Your task to perform on an android device: Add razer naga to the cart on ebay.com, then select checkout. Image 0: 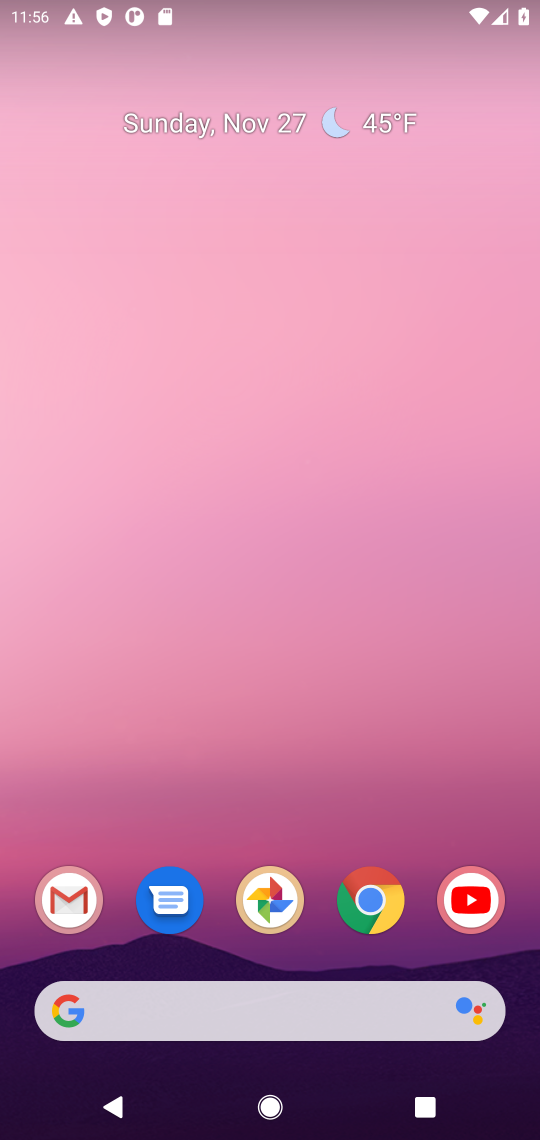
Step 0: click (380, 915)
Your task to perform on an android device: Add razer naga to the cart on ebay.com, then select checkout. Image 1: 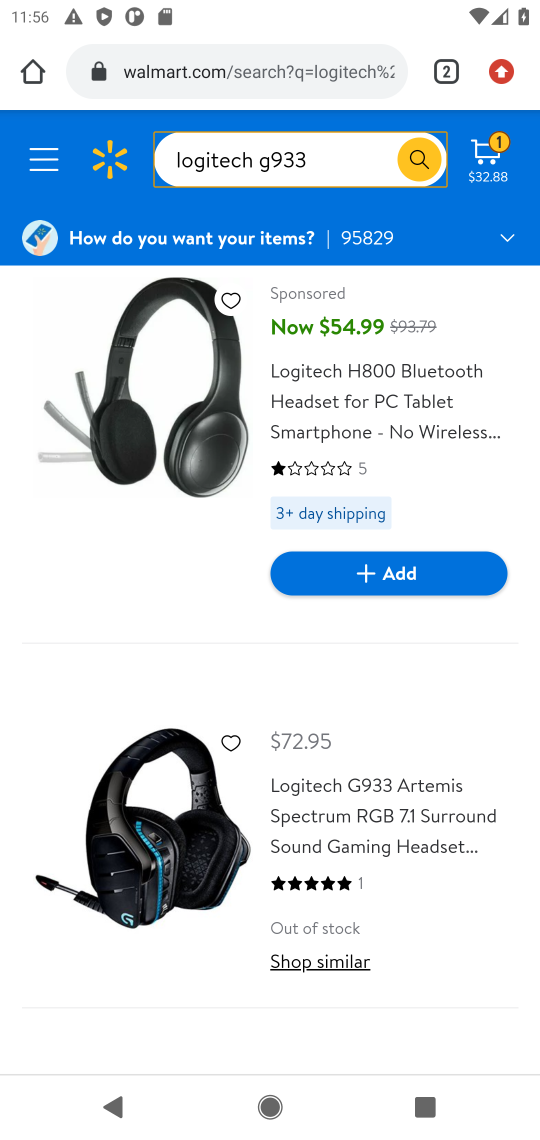
Step 1: click (247, 73)
Your task to perform on an android device: Add razer naga to the cart on ebay.com, then select checkout. Image 2: 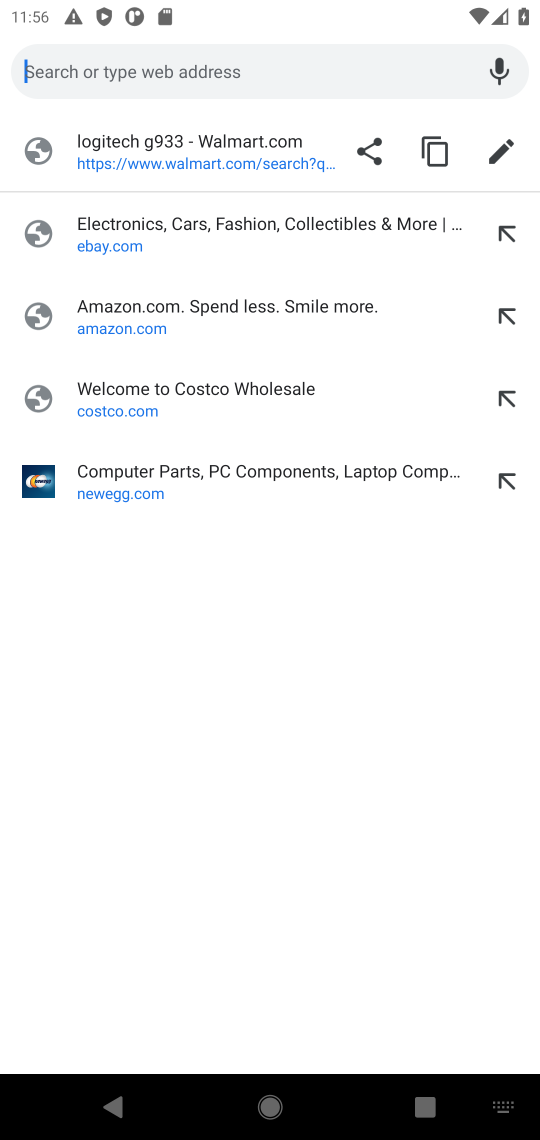
Step 2: click (107, 234)
Your task to perform on an android device: Add razer naga to the cart on ebay.com, then select checkout. Image 3: 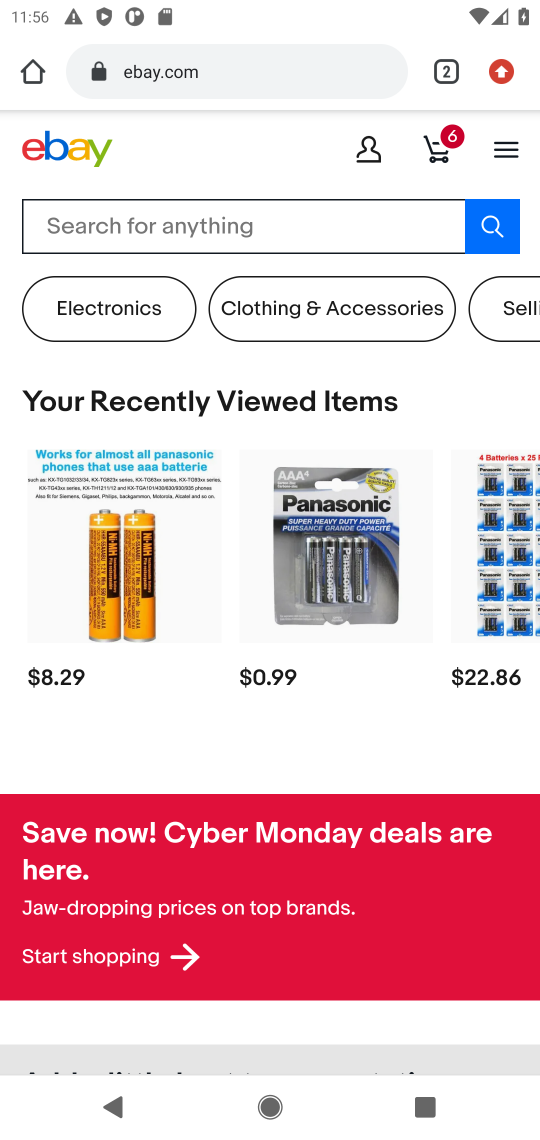
Step 3: click (108, 225)
Your task to perform on an android device: Add razer naga to the cart on ebay.com, then select checkout. Image 4: 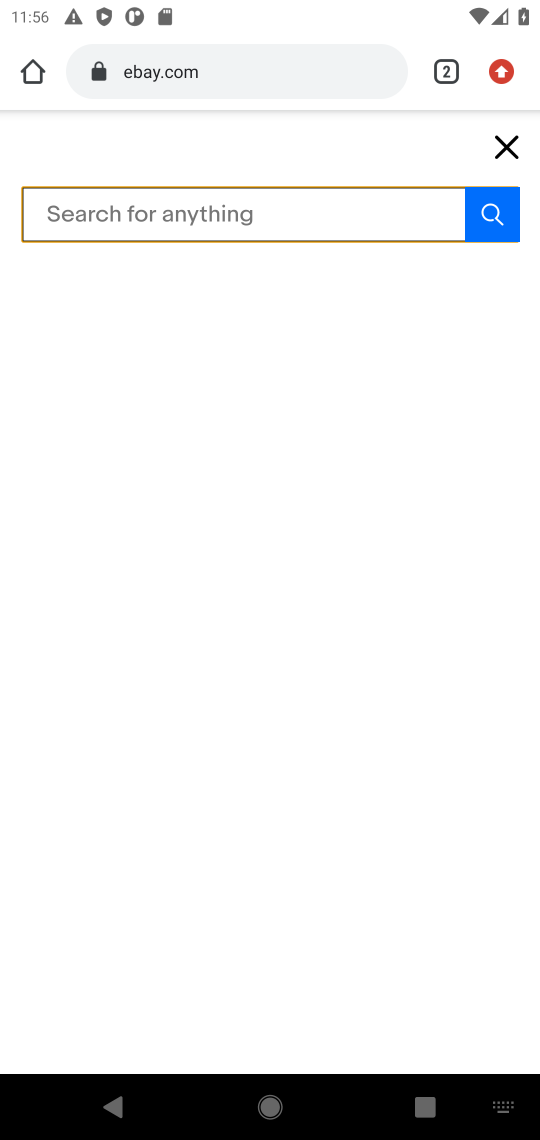
Step 4: type "razer naga "
Your task to perform on an android device: Add razer naga to the cart on ebay.com, then select checkout. Image 5: 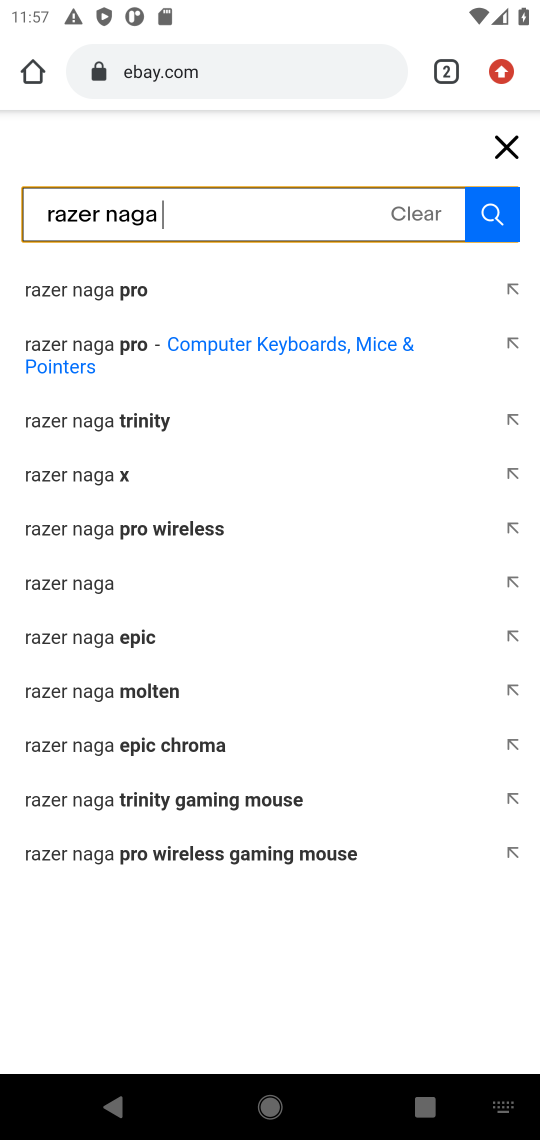
Step 5: click (89, 581)
Your task to perform on an android device: Add razer naga to the cart on ebay.com, then select checkout. Image 6: 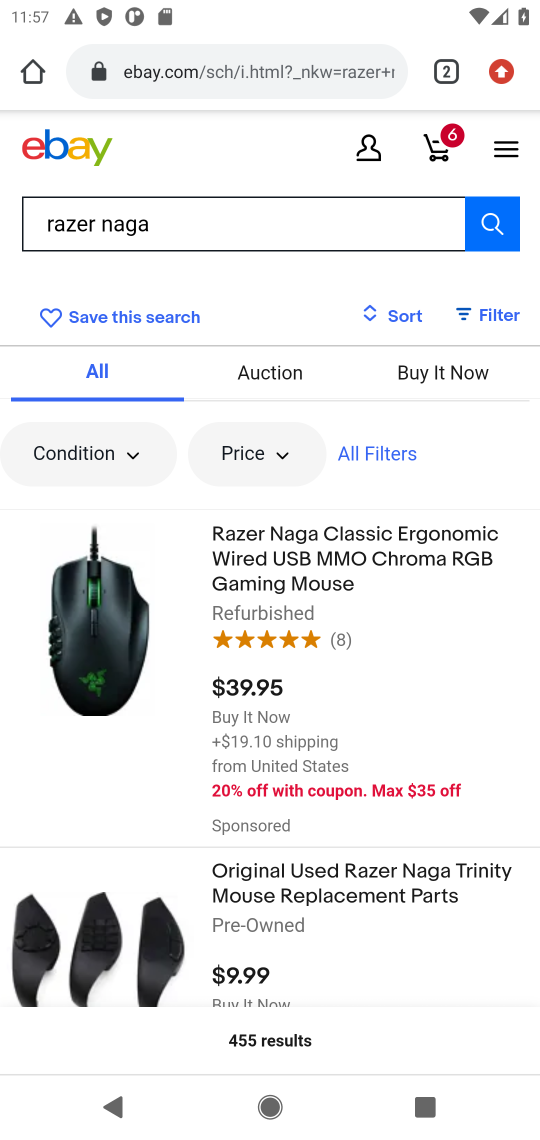
Step 6: click (254, 564)
Your task to perform on an android device: Add razer naga to the cart on ebay.com, then select checkout. Image 7: 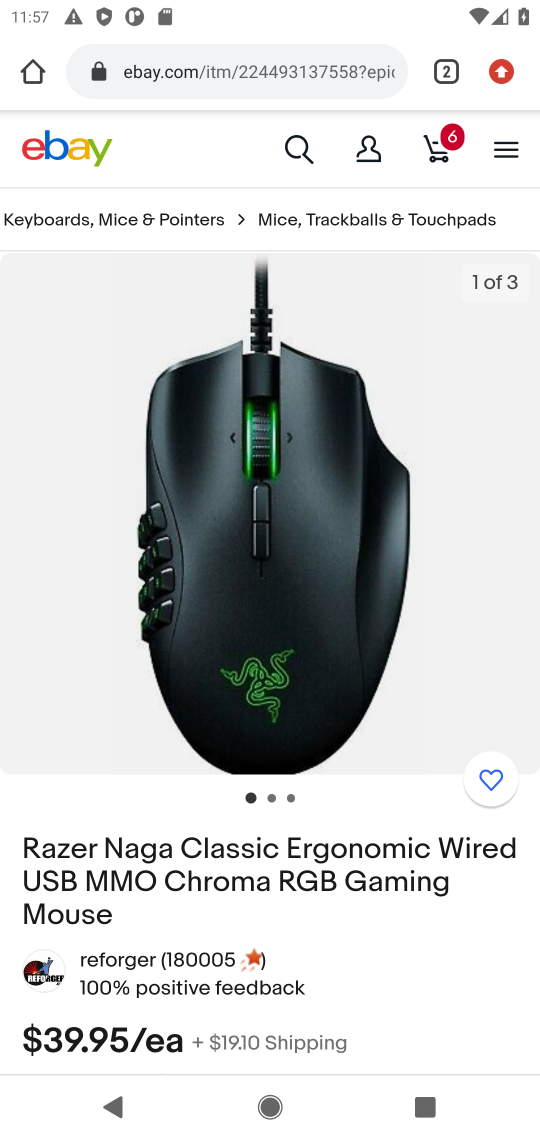
Step 7: drag from (435, 749) to (438, 294)
Your task to perform on an android device: Add razer naga to the cart on ebay.com, then select checkout. Image 8: 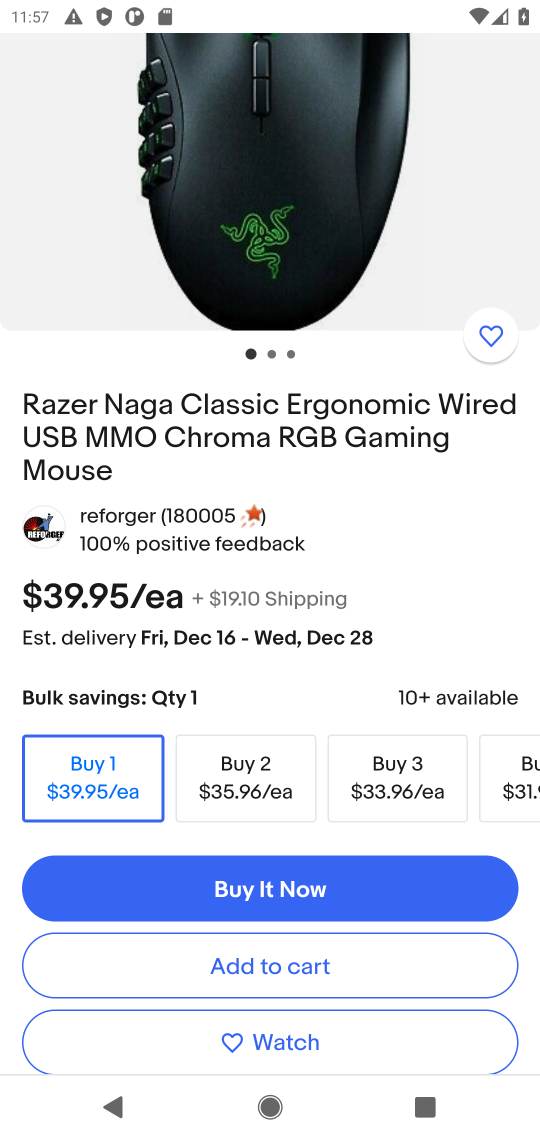
Step 8: click (225, 968)
Your task to perform on an android device: Add razer naga to the cart on ebay.com, then select checkout. Image 9: 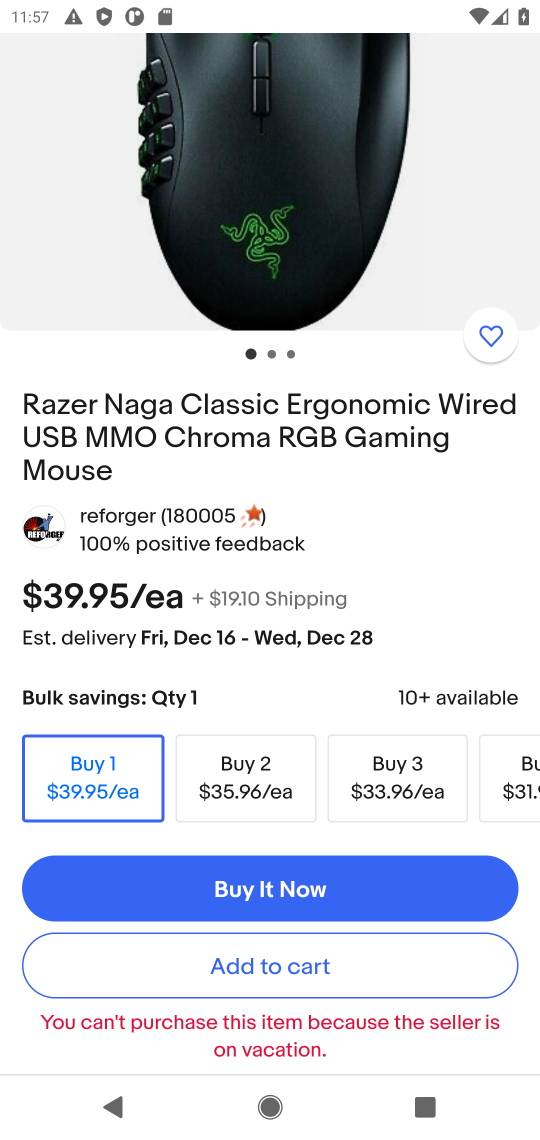
Step 9: drag from (354, 803) to (385, 445)
Your task to perform on an android device: Add razer naga to the cart on ebay.com, then select checkout. Image 10: 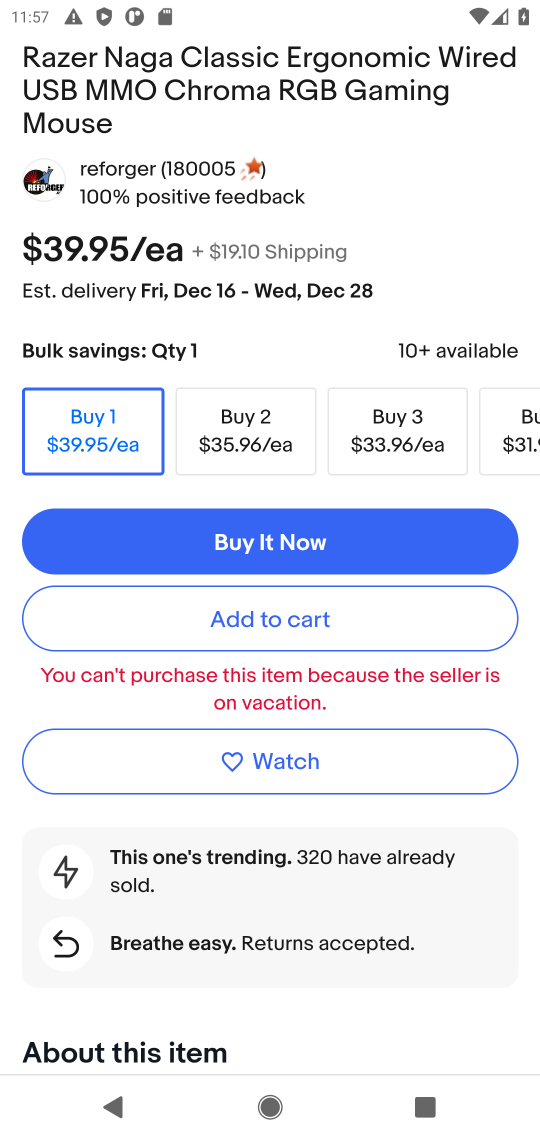
Step 10: press back button
Your task to perform on an android device: Add razer naga to the cart on ebay.com, then select checkout. Image 11: 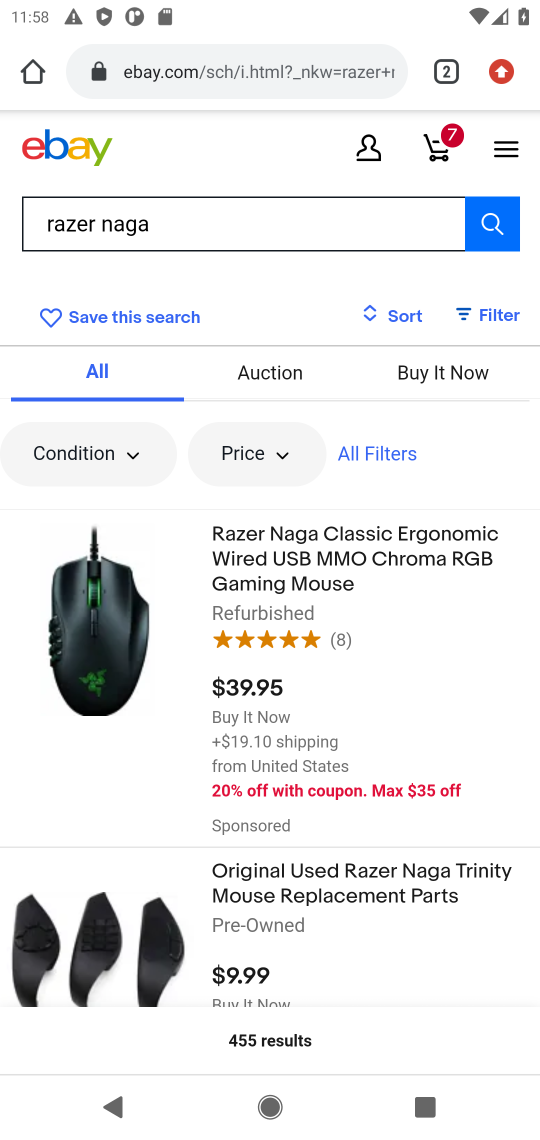
Step 11: drag from (253, 780) to (288, 489)
Your task to perform on an android device: Add razer naga to the cart on ebay.com, then select checkout. Image 12: 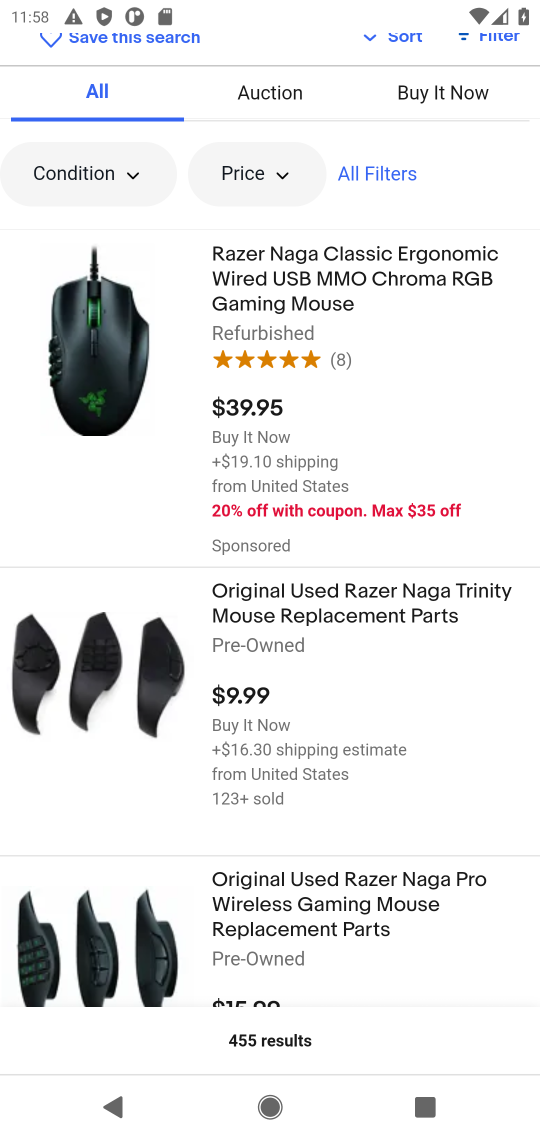
Step 12: click (127, 682)
Your task to perform on an android device: Add razer naga to the cart on ebay.com, then select checkout. Image 13: 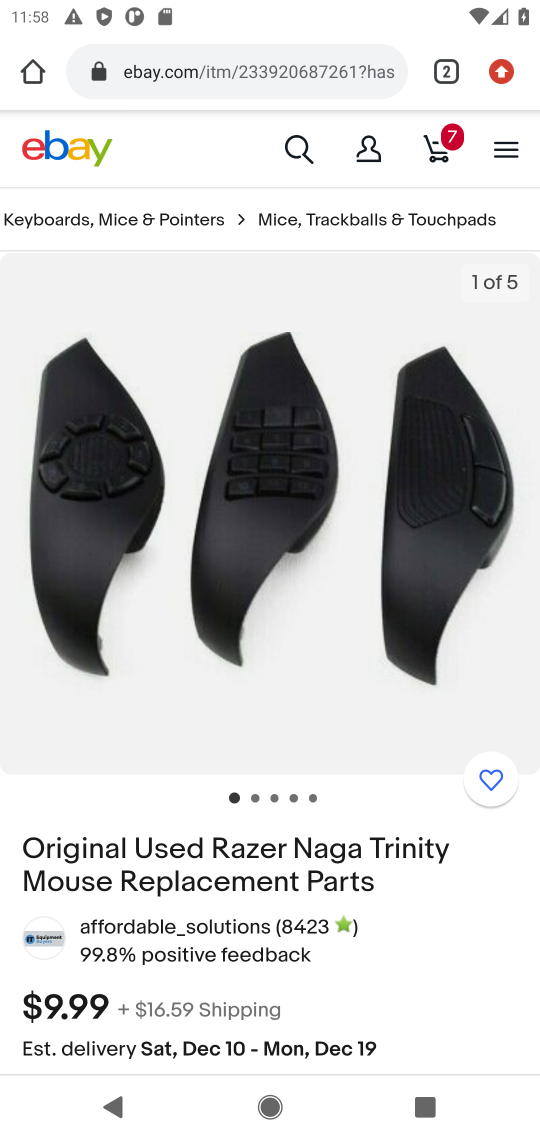
Step 13: drag from (250, 869) to (250, 506)
Your task to perform on an android device: Add razer naga to the cart on ebay.com, then select checkout. Image 14: 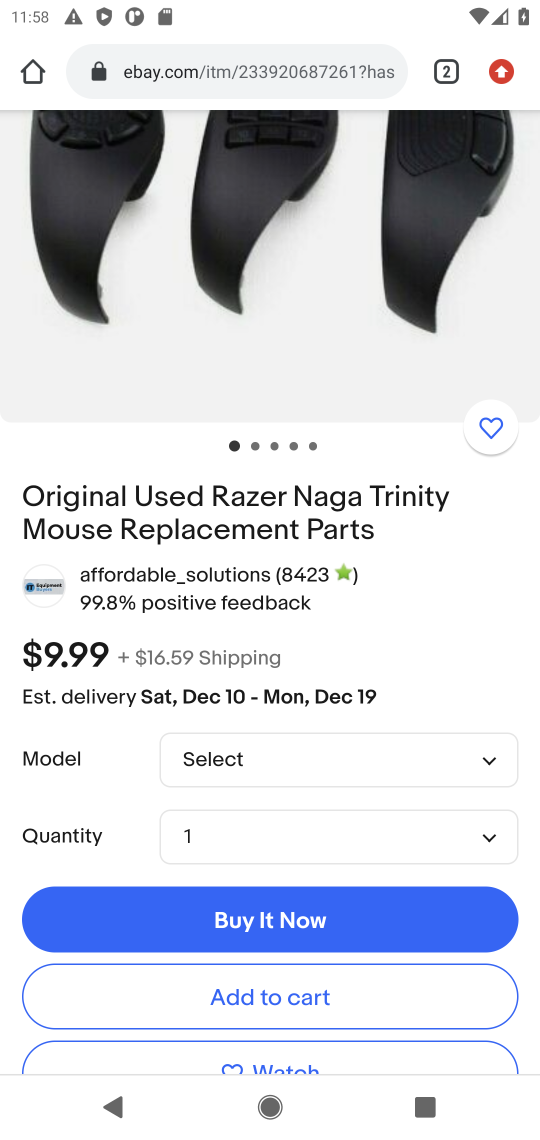
Step 14: drag from (277, 796) to (269, 524)
Your task to perform on an android device: Add razer naga to the cart on ebay.com, then select checkout. Image 15: 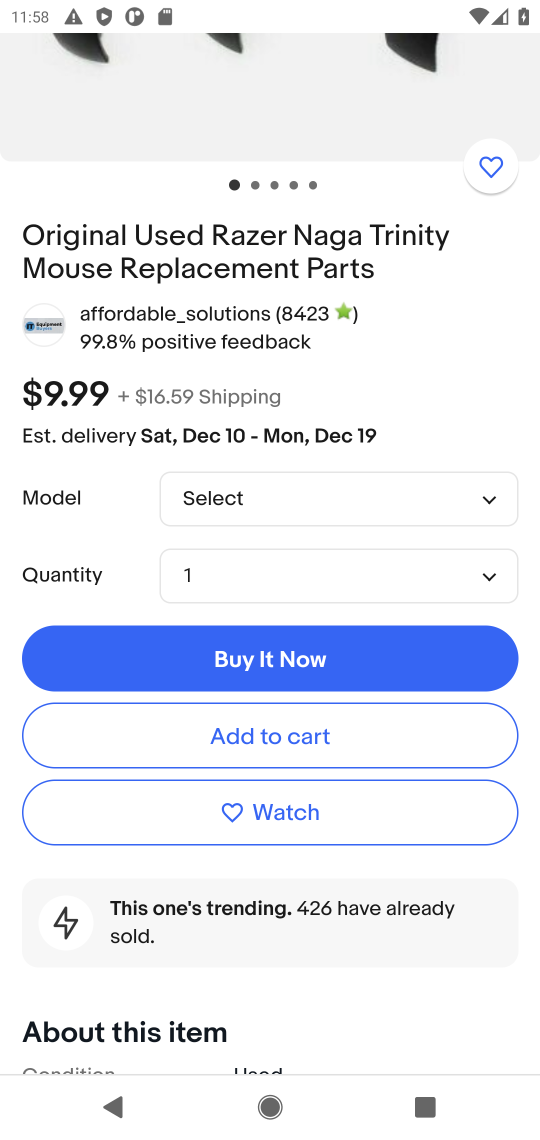
Step 15: click (239, 745)
Your task to perform on an android device: Add razer naga to the cart on ebay.com, then select checkout. Image 16: 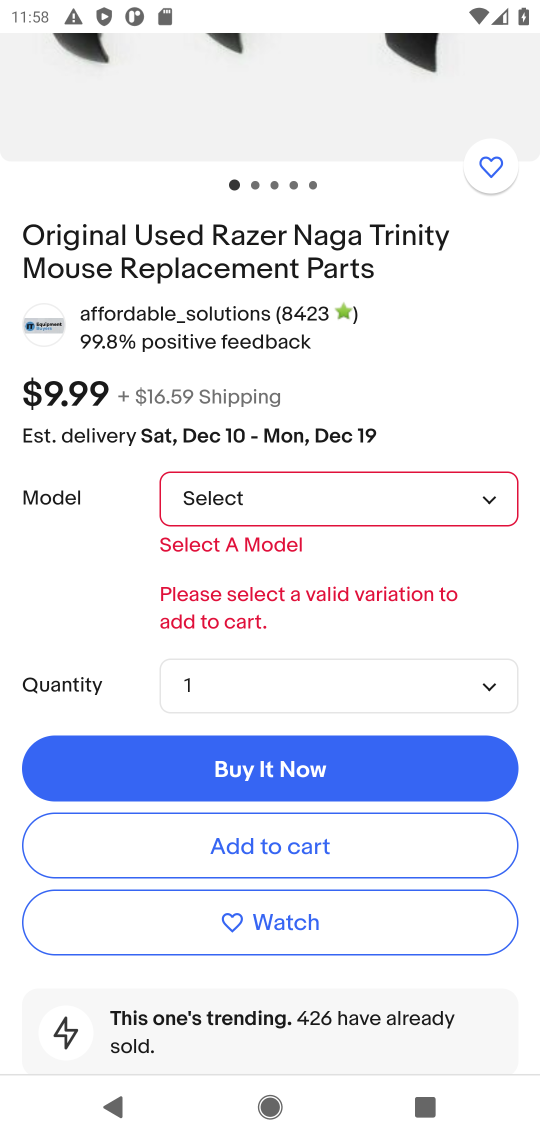
Step 16: click (490, 511)
Your task to perform on an android device: Add razer naga to the cart on ebay.com, then select checkout. Image 17: 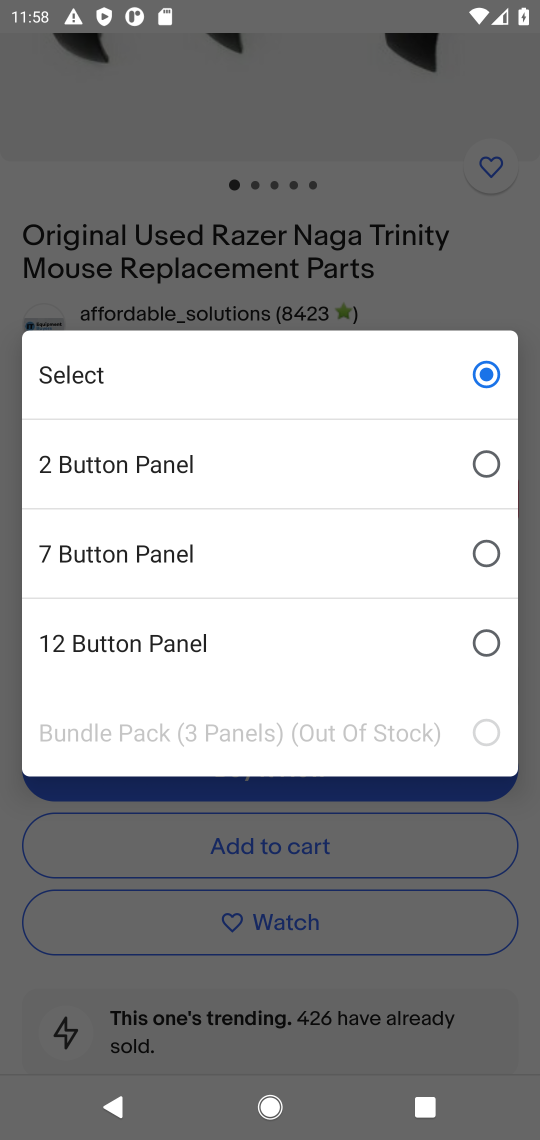
Step 17: click (111, 473)
Your task to perform on an android device: Add razer naga to the cart on ebay.com, then select checkout. Image 18: 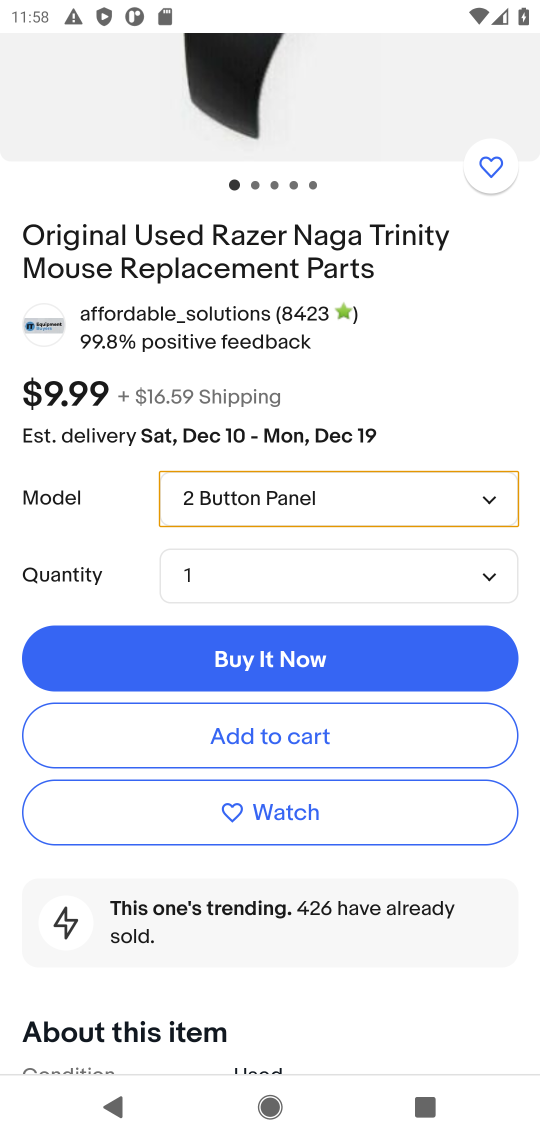
Step 18: click (246, 742)
Your task to perform on an android device: Add razer naga to the cart on ebay.com, then select checkout. Image 19: 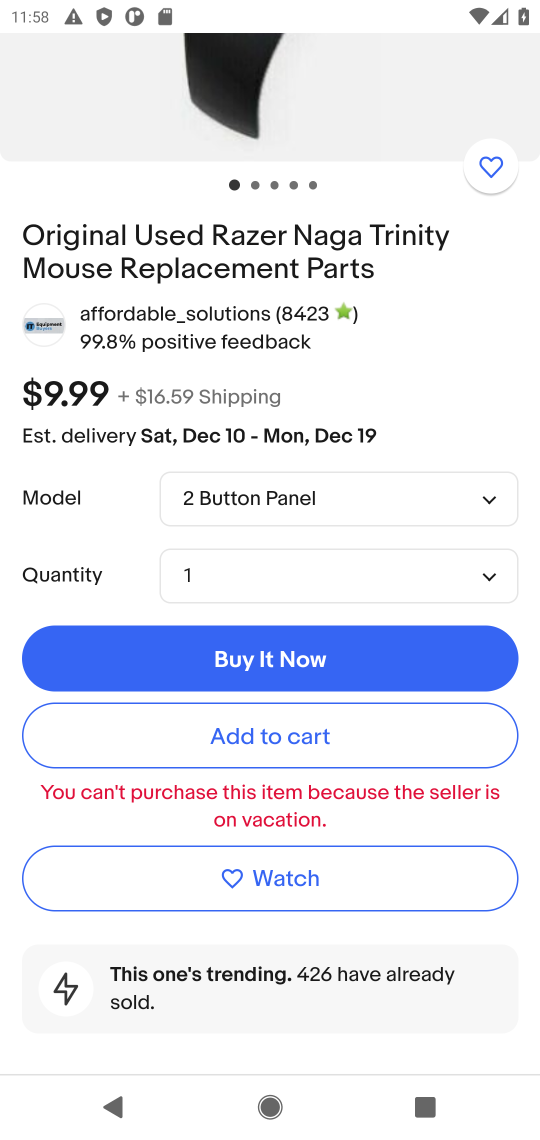
Step 19: task complete